Your task to perform on an android device: Show me the best rated 4K TV on Walmart. Image 0: 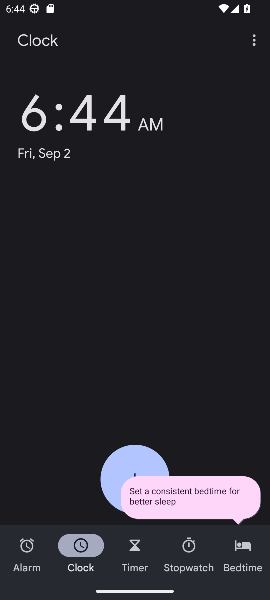
Step 0: press home button
Your task to perform on an android device: Show me the best rated 4K TV on Walmart. Image 1: 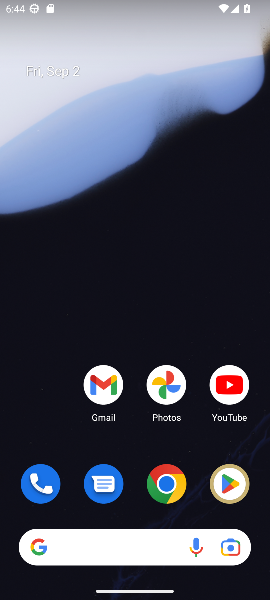
Step 1: click (161, 480)
Your task to perform on an android device: Show me the best rated 4K TV on Walmart. Image 2: 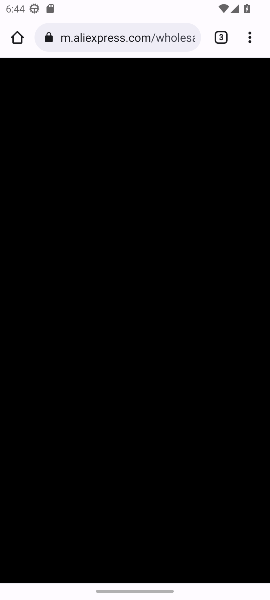
Step 2: click (155, 32)
Your task to perform on an android device: Show me the best rated 4K TV on Walmart. Image 3: 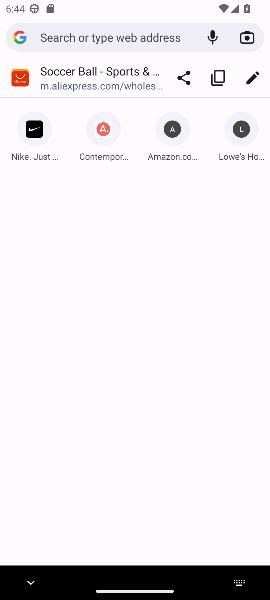
Step 3: type " Walmart"
Your task to perform on an android device: Show me the best rated 4K TV on Walmart. Image 4: 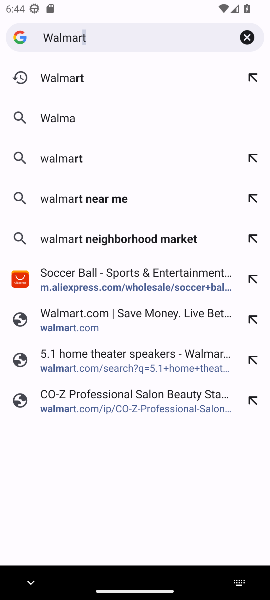
Step 4: press enter
Your task to perform on an android device: Show me the best rated 4K TV on Walmart. Image 5: 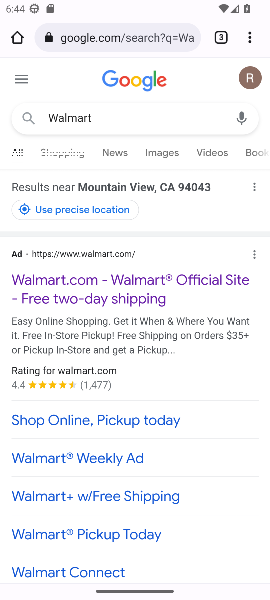
Step 5: drag from (125, 450) to (246, 155)
Your task to perform on an android device: Show me the best rated 4K TV on Walmart. Image 6: 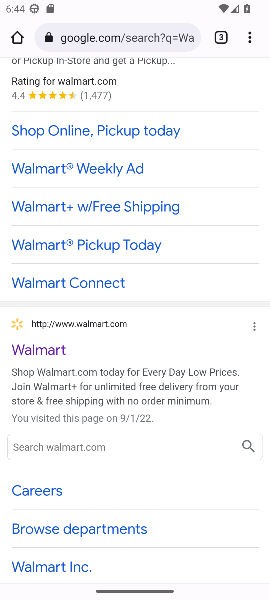
Step 6: click (52, 351)
Your task to perform on an android device: Show me the best rated 4K TV on Walmart. Image 7: 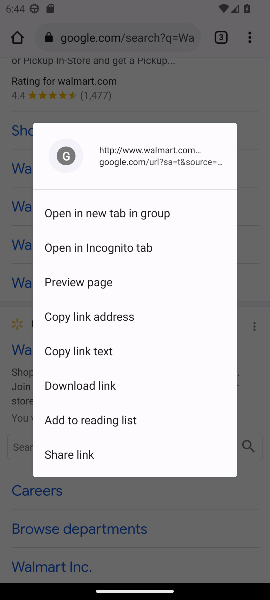
Step 7: click (250, 358)
Your task to perform on an android device: Show me the best rated 4K TV on Walmart. Image 8: 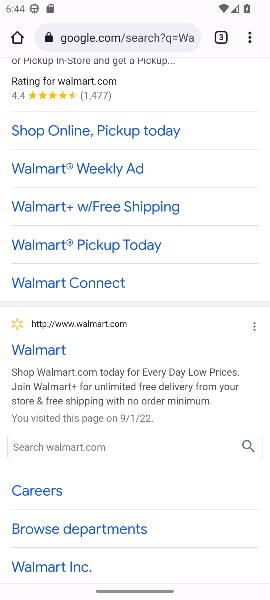
Step 8: click (36, 350)
Your task to perform on an android device: Show me the best rated 4K TV on Walmart. Image 9: 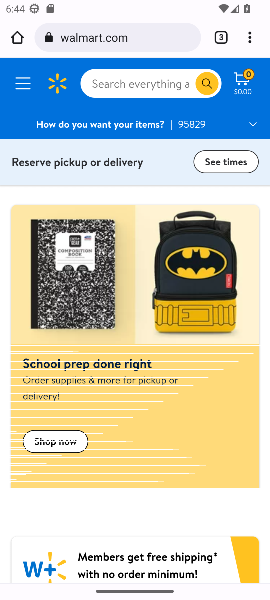
Step 9: click (124, 76)
Your task to perform on an android device: Show me the best rated 4K TV on Walmart. Image 10: 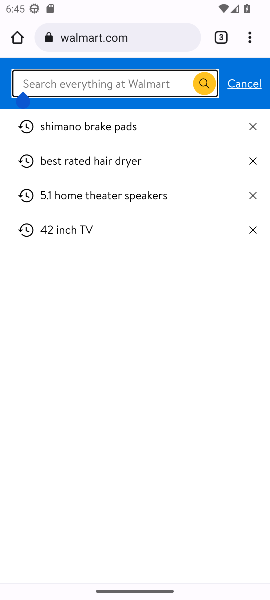
Step 10: type " 4K TV"
Your task to perform on an android device: Show me the best rated 4K TV on Walmart. Image 11: 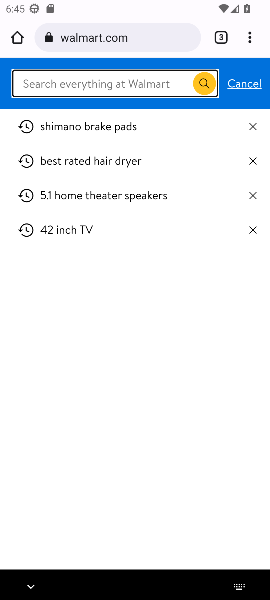
Step 11: press enter
Your task to perform on an android device: Show me the best rated 4K TV on Walmart. Image 12: 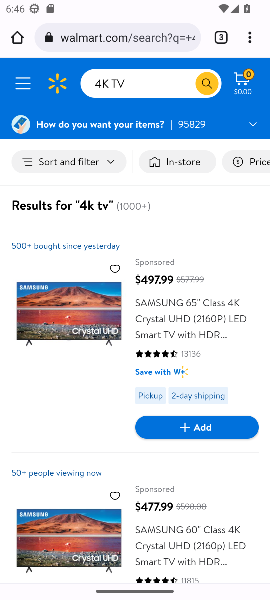
Step 12: task complete